Your task to perform on an android device: Open calendar and show me the second week of next month Image 0: 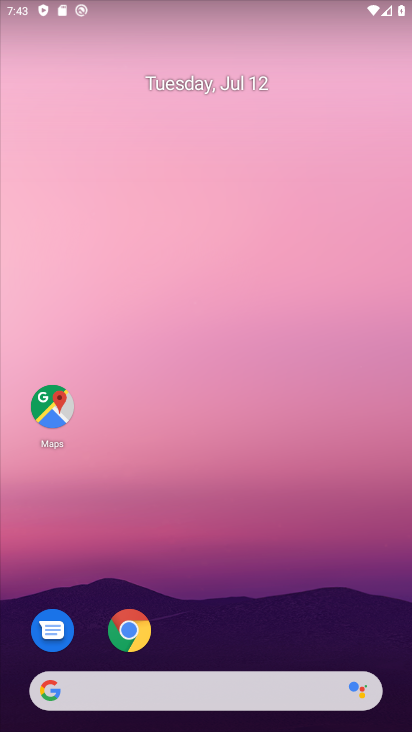
Step 0: drag from (261, 684) to (183, 80)
Your task to perform on an android device: Open calendar and show me the second week of next month Image 1: 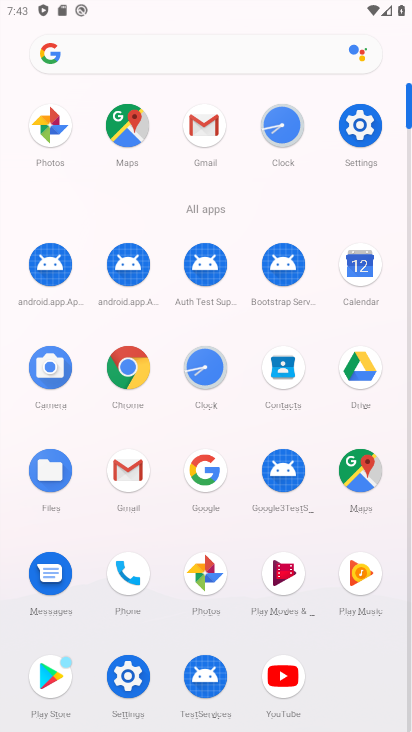
Step 1: click (361, 270)
Your task to perform on an android device: Open calendar and show me the second week of next month Image 2: 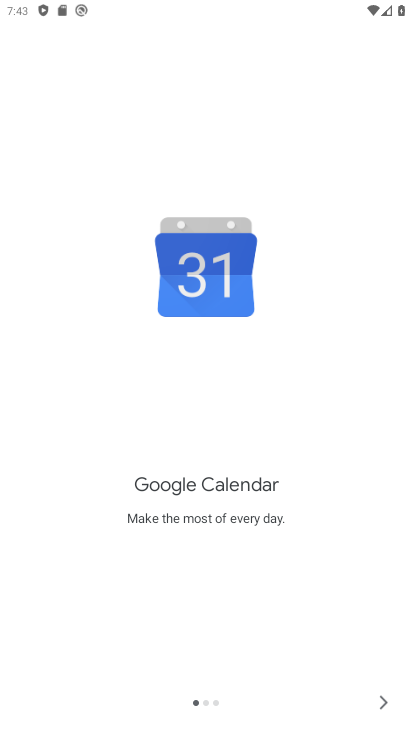
Step 2: click (378, 699)
Your task to perform on an android device: Open calendar and show me the second week of next month Image 3: 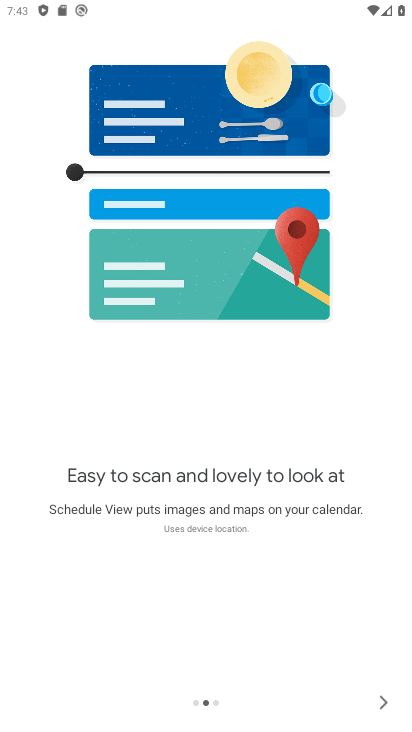
Step 3: click (380, 699)
Your task to perform on an android device: Open calendar and show me the second week of next month Image 4: 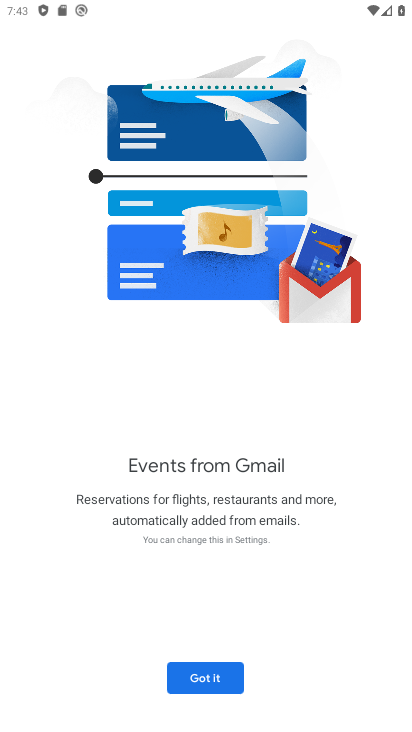
Step 4: click (378, 698)
Your task to perform on an android device: Open calendar and show me the second week of next month Image 5: 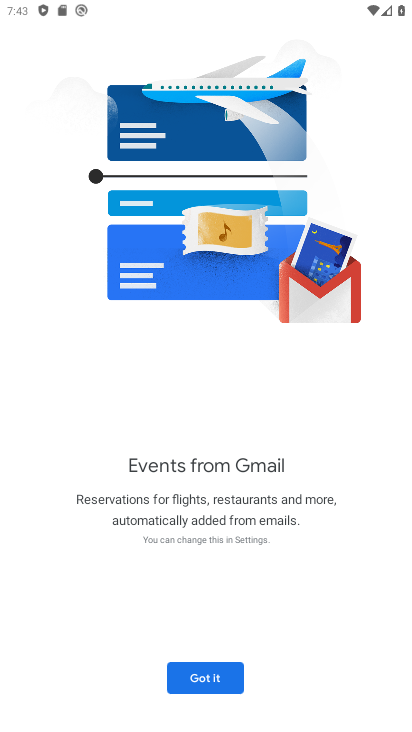
Step 5: click (190, 680)
Your task to perform on an android device: Open calendar and show me the second week of next month Image 6: 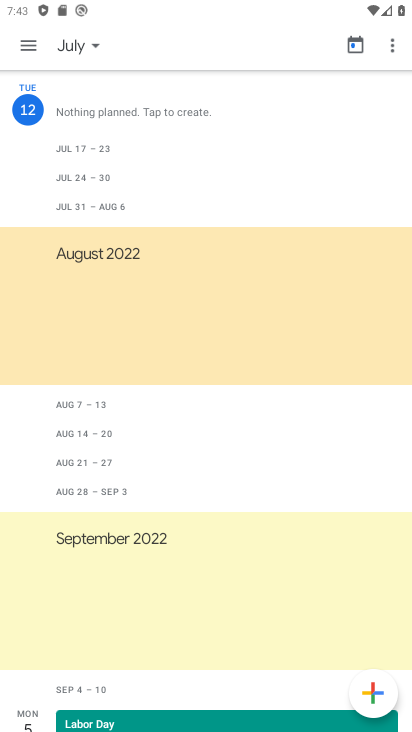
Step 6: click (32, 46)
Your task to perform on an android device: Open calendar and show me the second week of next month Image 7: 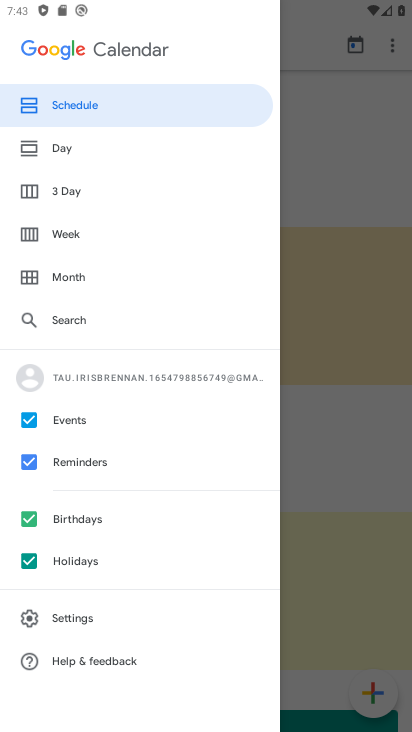
Step 7: click (105, 279)
Your task to perform on an android device: Open calendar and show me the second week of next month Image 8: 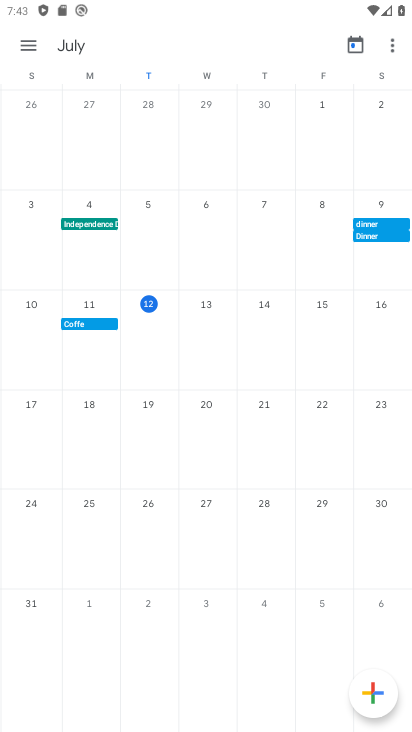
Step 8: task complete